Your task to perform on an android device: change notifications settings Image 0: 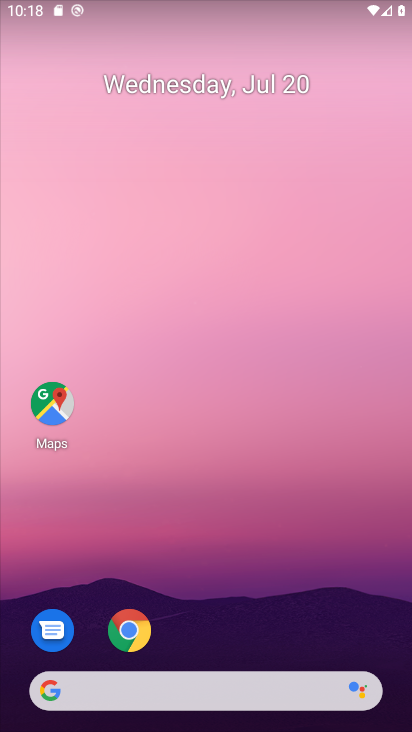
Step 0: drag from (270, 586) to (270, 330)
Your task to perform on an android device: change notifications settings Image 1: 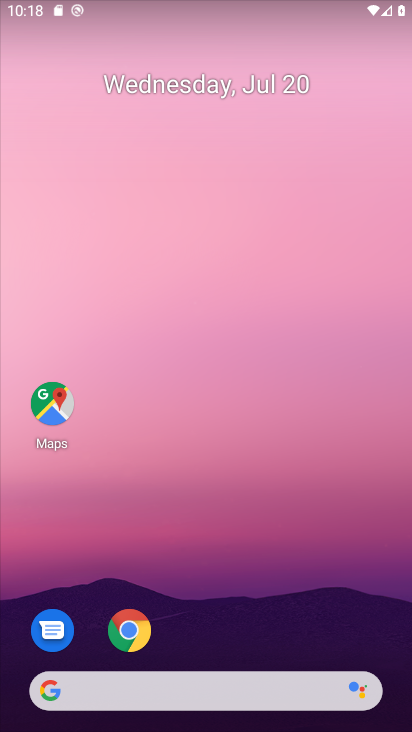
Step 1: drag from (244, 615) to (239, 203)
Your task to perform on an android device: change notifications settings Image 2: 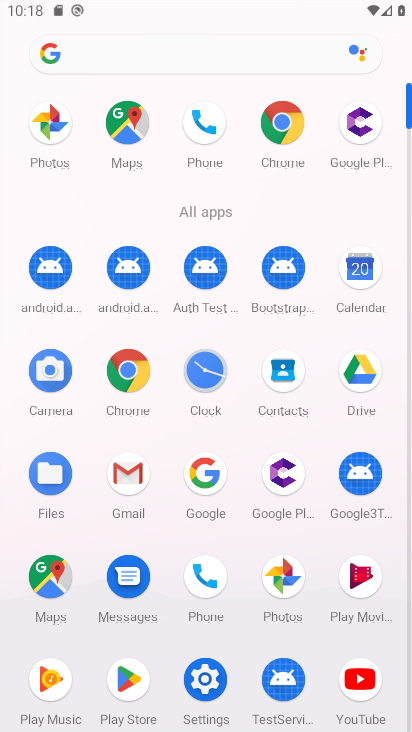
Step 2: click (204, 687)
Your task to perform on an android device: change notifications settings Image 3: 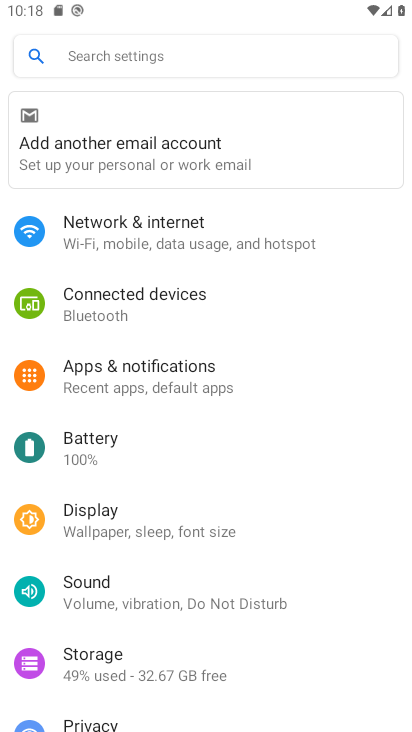
Step 3: click (145, 377)
Your task to perform on an android device: change notifications settings Image 4: 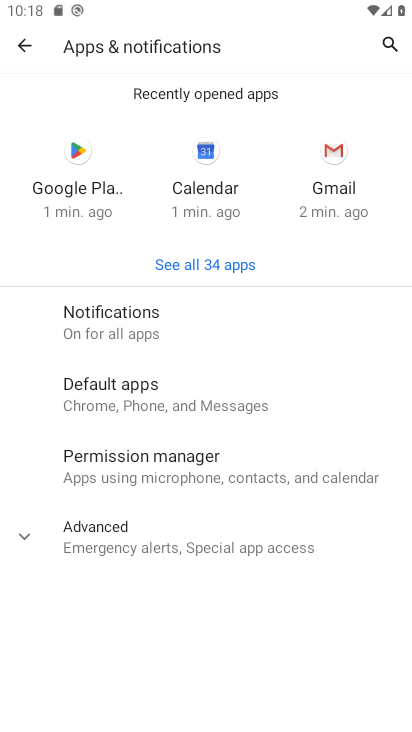
Step 4: click (121, 332)
Your task to perform on an android device: change notifications settings Image 5: 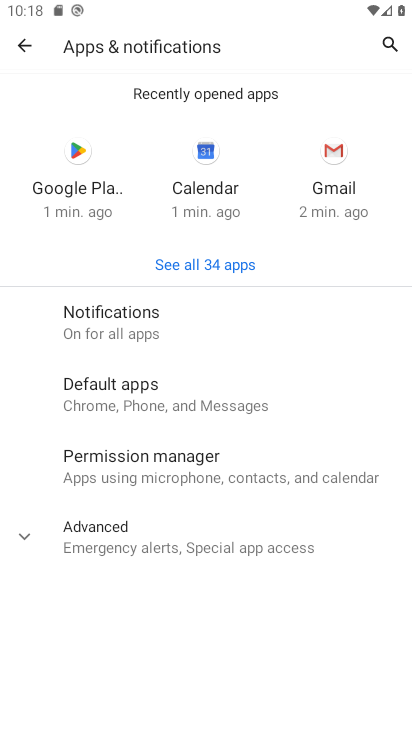
Step 5: click (121, 332)
Your task to perform on an android device: change notifications settings Image 6: 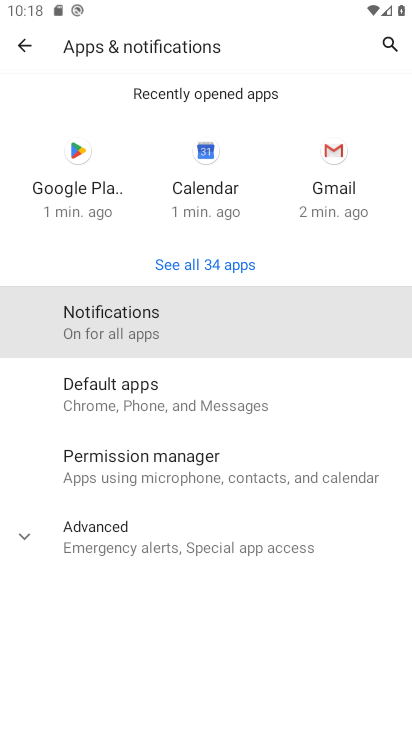
Step 6: click (122, 331)
Your task to perform on an android device: change notifications settings Image 7: 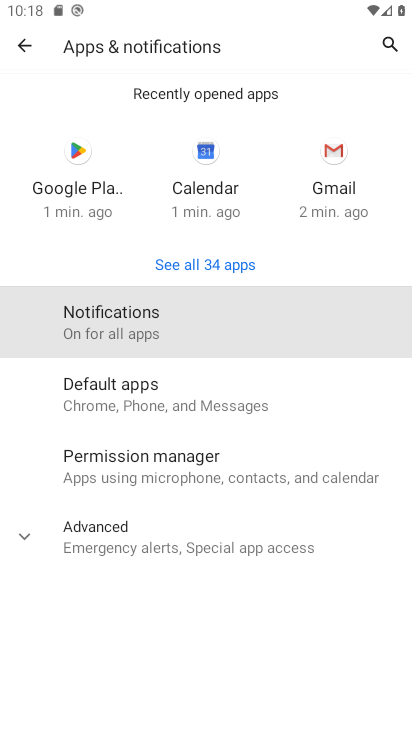
Step 7: click (123, 331)
Your task to perform on an android device: change notifications settings Image 8: 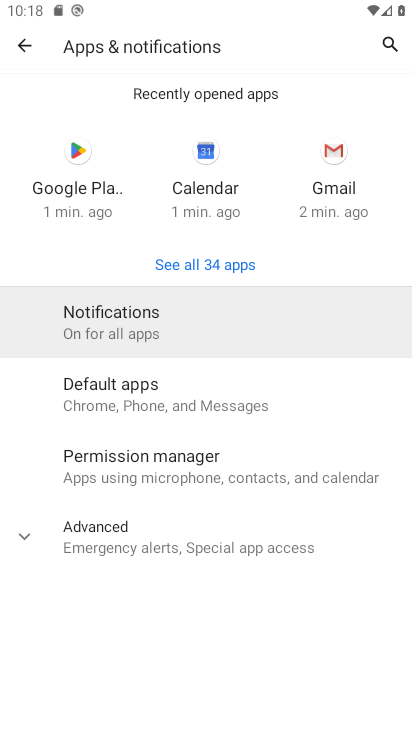
Step 8: click (125, 332)
Your task to perform on an android device: change notifications settings Image 9: 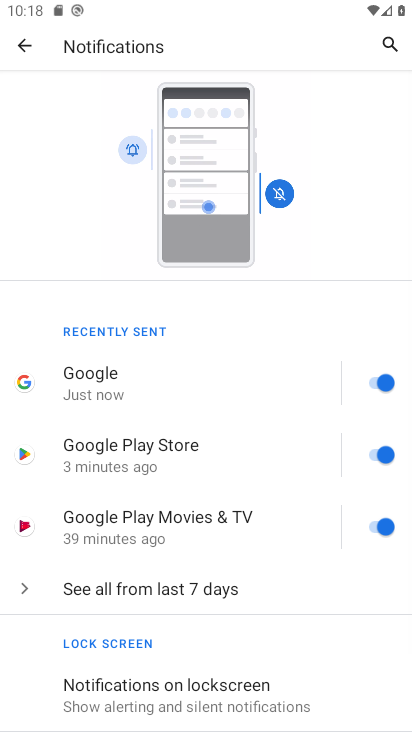
Step 9: click (115, 318)
Your task to perform on an android device: change notifications settings Image 10: 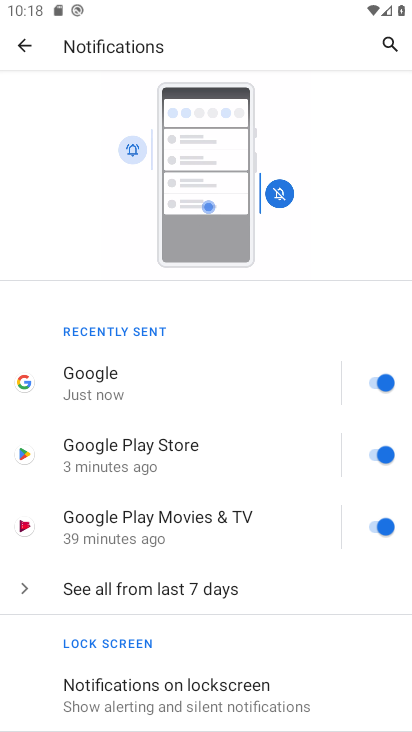
Step 10: click (115, 318)
Your task to perform on an android device: change notifications settings Image 11: 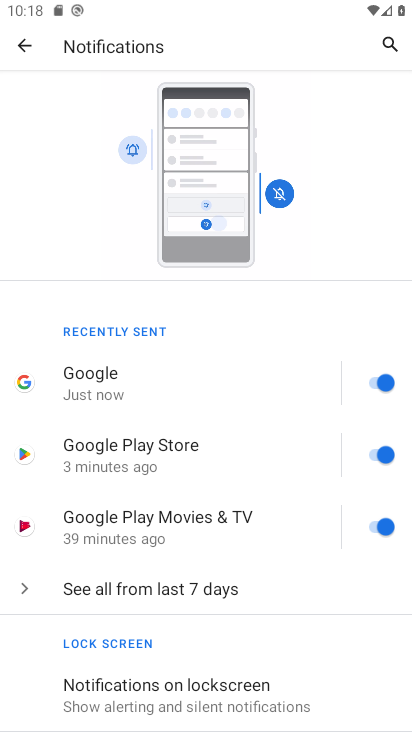
Step 11: click (107, 323)
Your task to perform on an android device: change notifications settings Image 12: 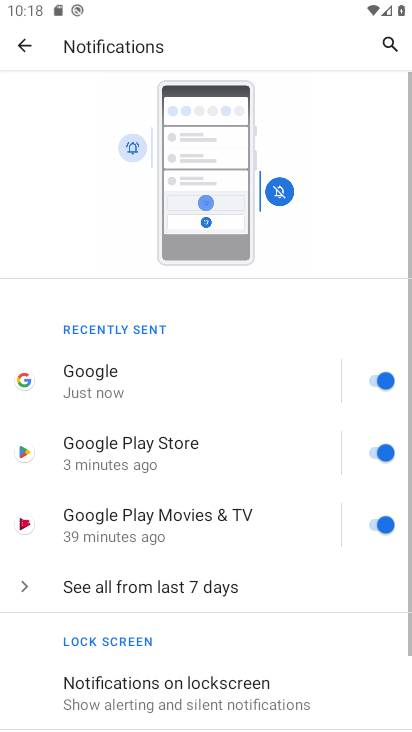
Step 12: click (121, 316)
Your task to perform on an android device: change notifications settings Image 13: 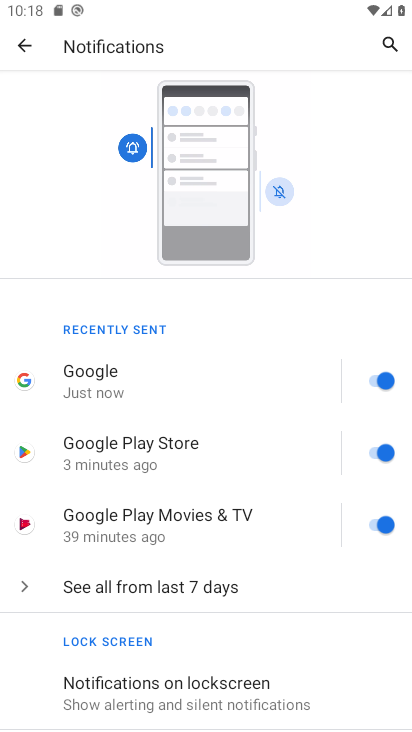
Step 13: click (140, 293)
Your task to perform on an android device: change notifications settings Image 14: 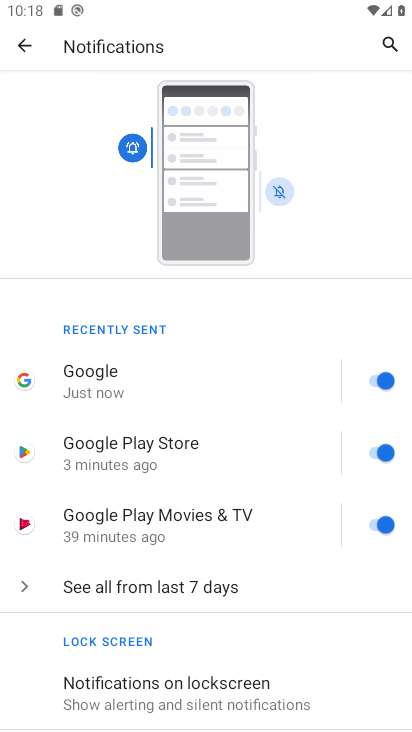
Step 14: click (111, 310)
Your task to perform on an android device: change notifications settings Image 15: 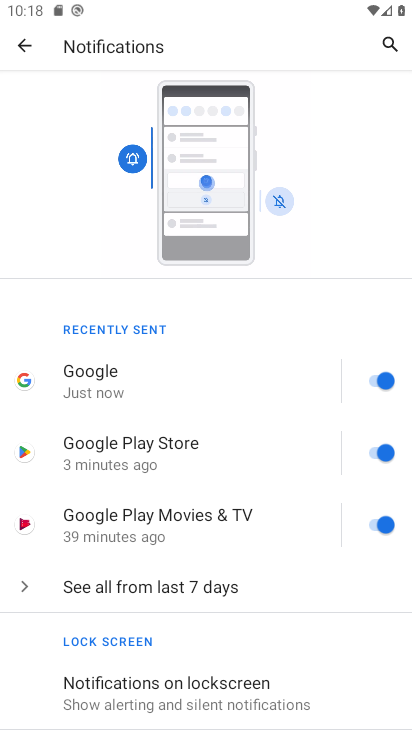
Step 15: click (392, 386)
Your task to perform on an android device: change notifications settings Image 16: 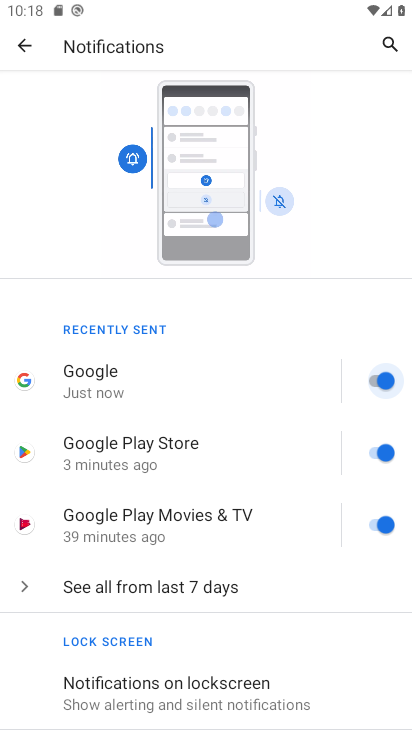
Step 16: click (388, 378)
Your task to perform on an android device: change notifications settings Image 17: 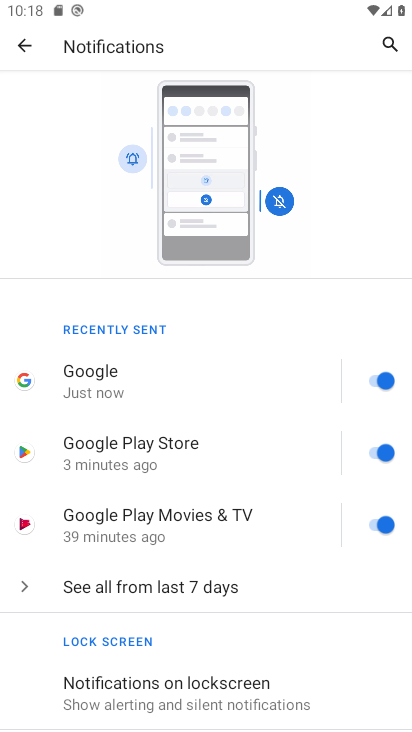
Step 17: click (384, 451)
Your task to perform on an android device: change notifications settings Image 18: 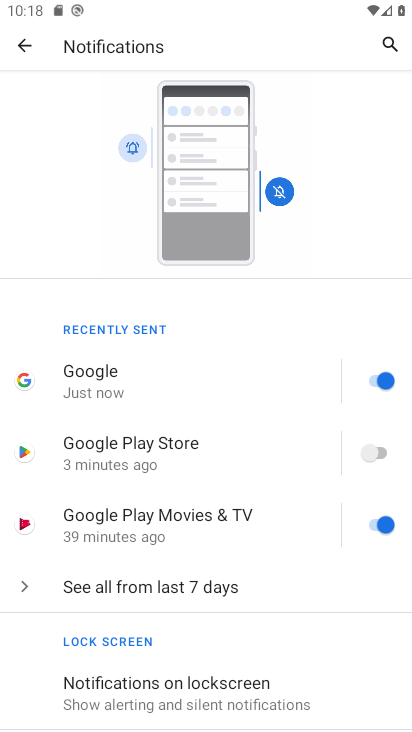
Step 18: click (382, 374)
Your task to perform on an android device: change notifications settings Image 19: 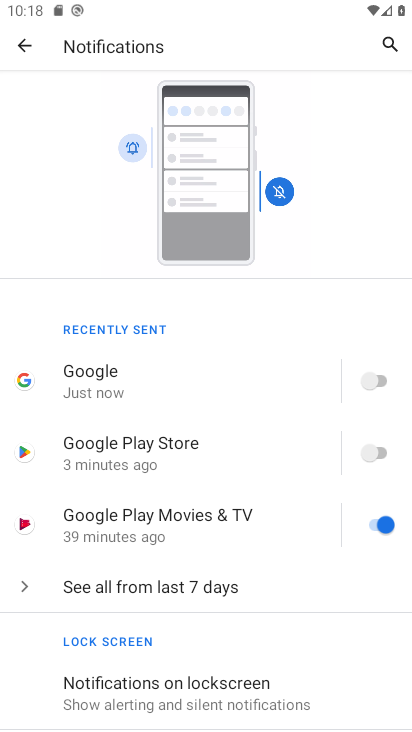
Step 19: click (377, 528)
Your task to perform on an android device: change notifications settings Image 20: 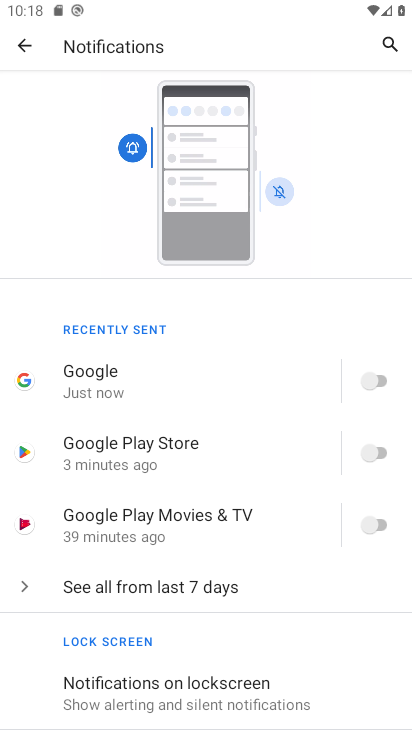
Step 20: task complete